Your task to perform on an android device: turn on showing notifications on the lock screen Image 0: 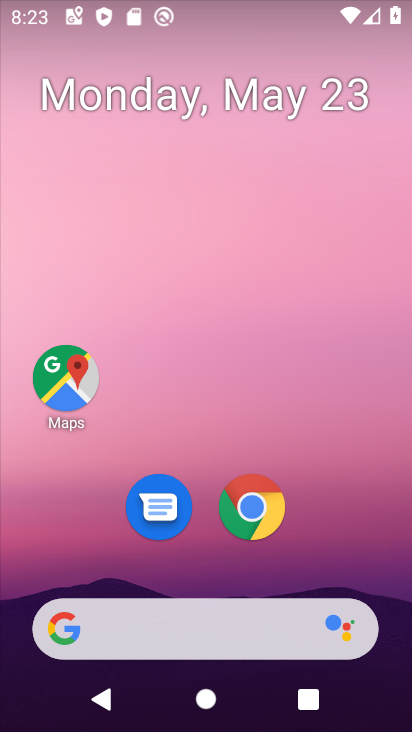
Step 0: drag from (377, 556) to (323, 111)
Your task to perform on an android device: turn on showing notifications on the lock screen Image 1: 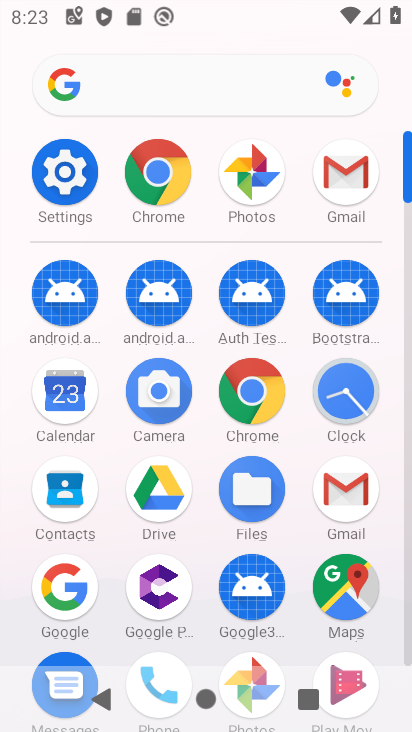
Step 1: click (35, 179)
Your task to perform on an android device: turn on showing notifications on the lock screen Image 2: 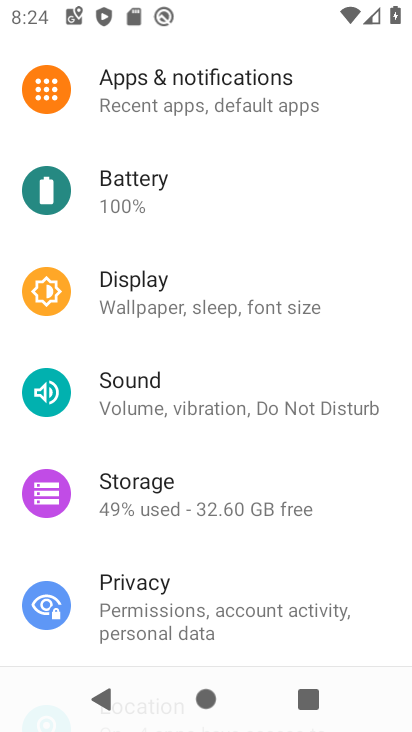
Step 2: click (272, 99)
Your task to perform on an android device: turn on showing notifications on the lock screen Image 3: 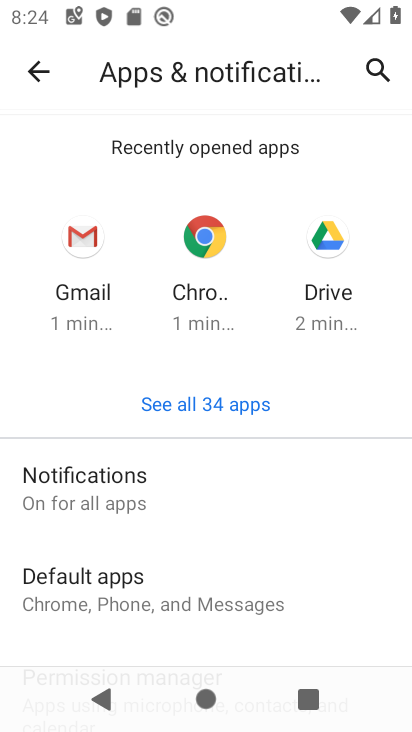
Step 3: click (155, 495)
Your task to perform on an android device: turn on showing notifications on the lock screen Image 4: 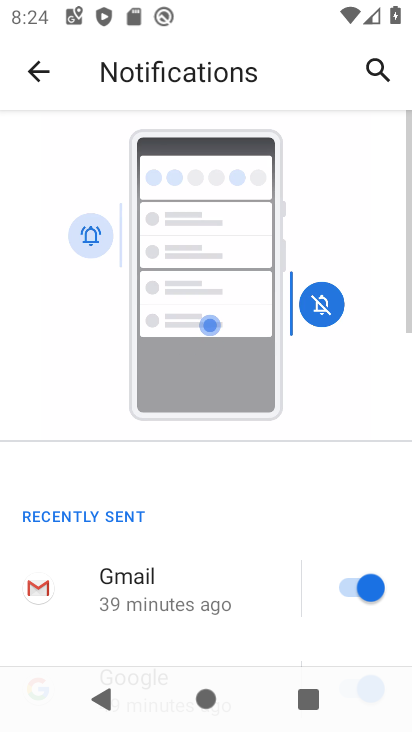
Step 4: drag from (218, 534) to (285, 172)
Your task to perform on an android device: turn on showing notifications on the lock screen Image 5: 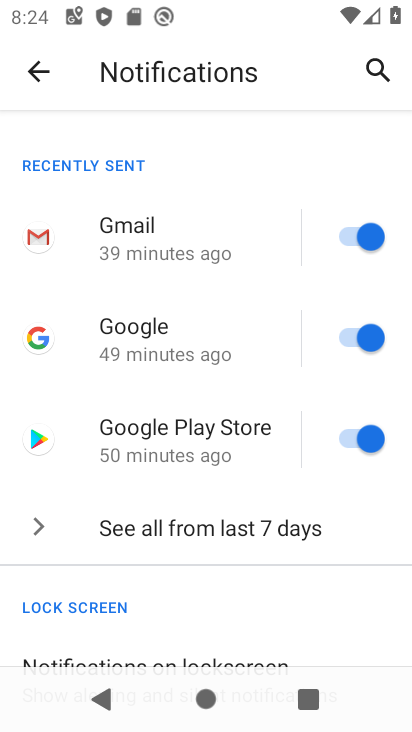
Step 5: drag from (198, 591) to (214, 225)
Your task to perform on an android device: turn on showing notifications on the lock screen Image 6: 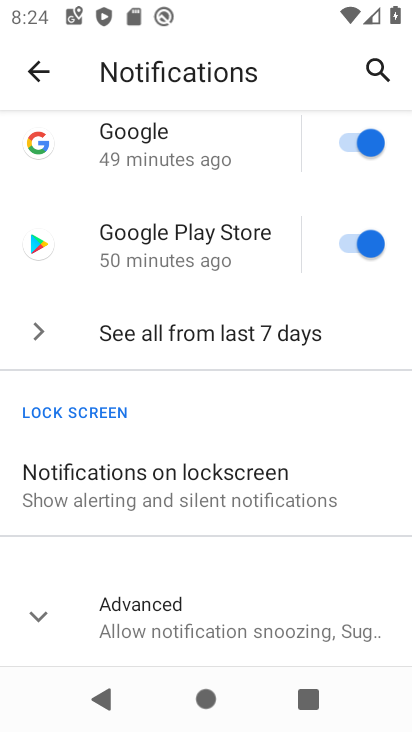
Step 6: click (195, 463)
Your task to perform on an android device: turn on showing notifications on the lock screen Image 7: 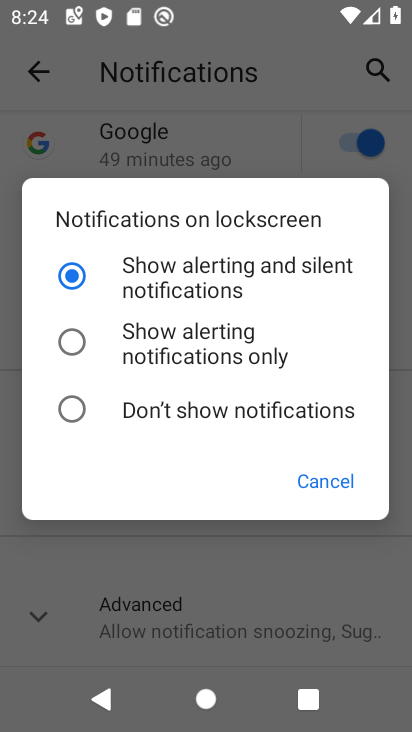
Step 7: task complete